Your task to perform on an android device: snooze an email in the gmail app Image 0: 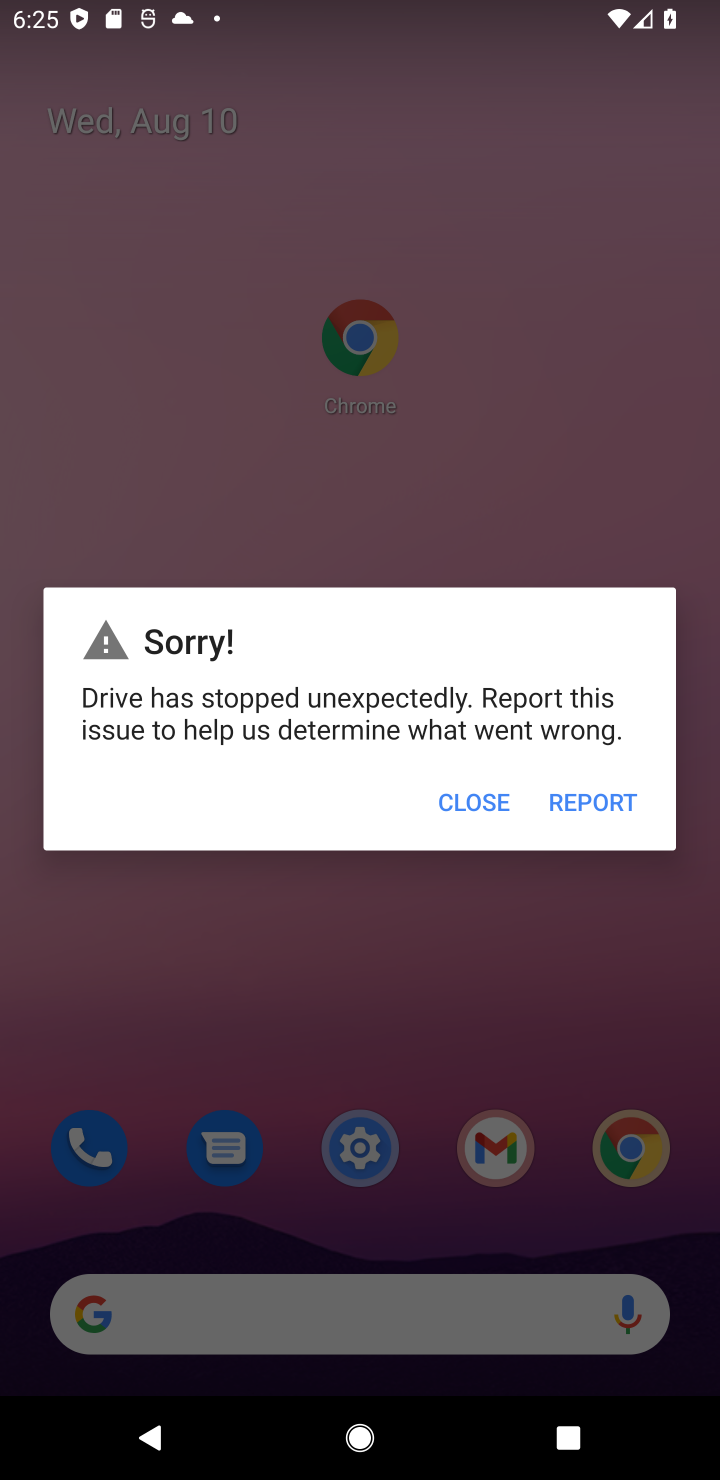
Step 0: click (480, 805)
Your task to perform on an android device: snooze an email in the gmail app Image 1: 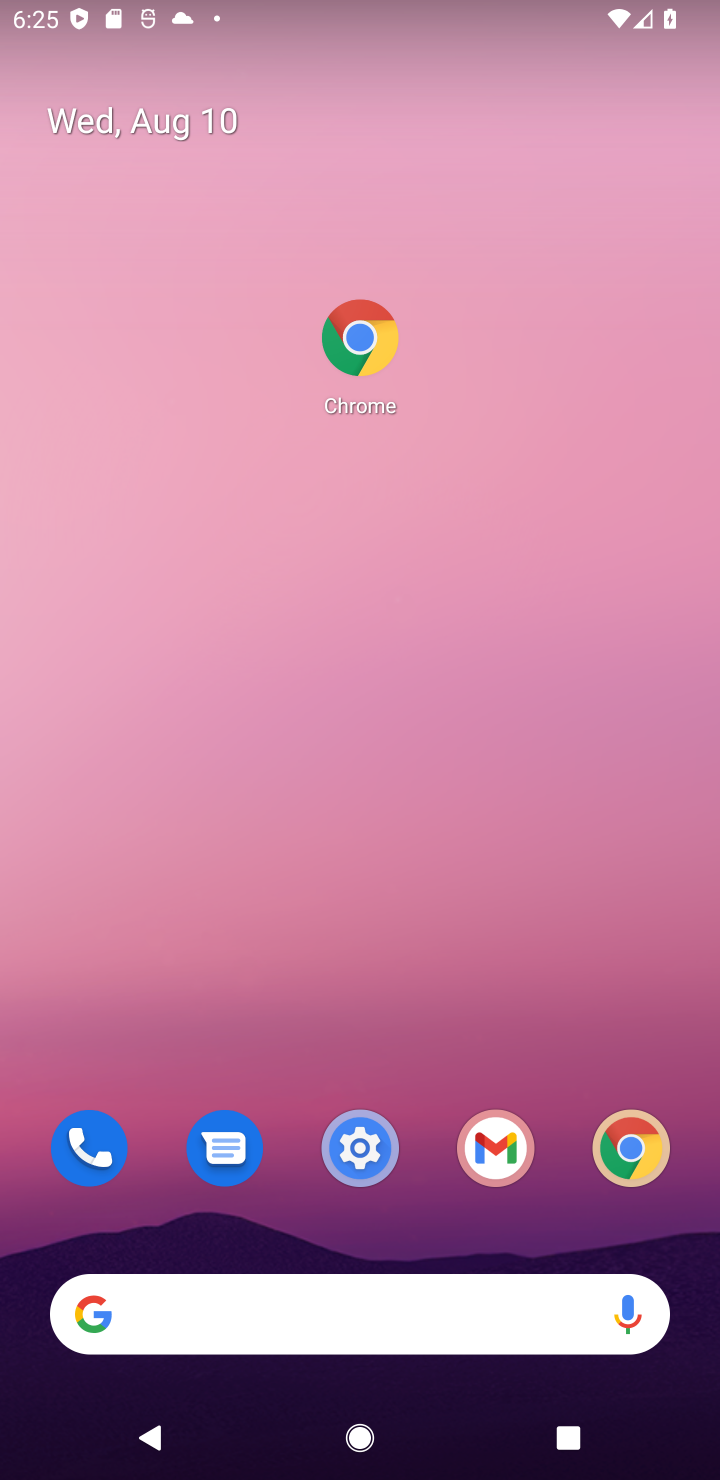
Step 1: click (486, 1153)
Your task to perform on an android device: snooze an email in the gmail app Image 2: 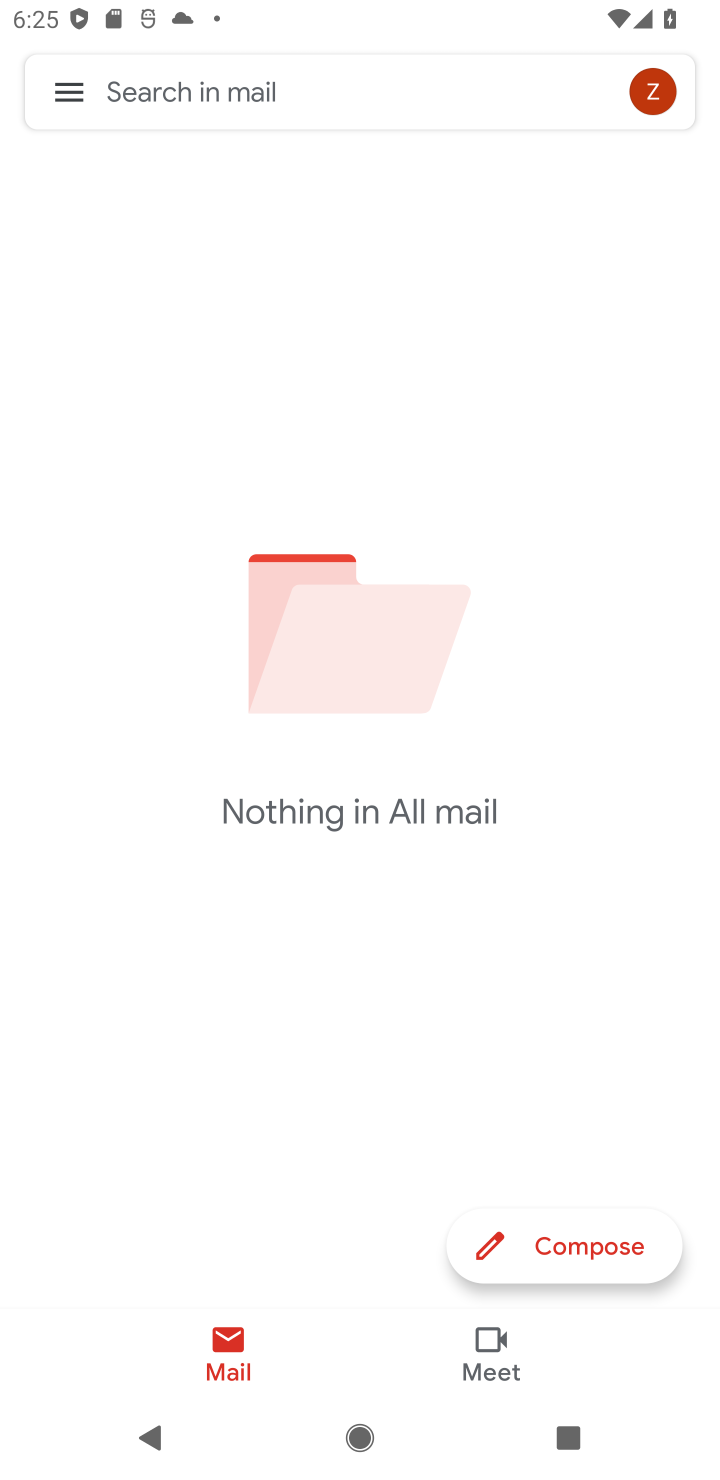
Step 2: click (58, 99)
Your task to perform on an android device: snooze an email in the gmail app Image 3: 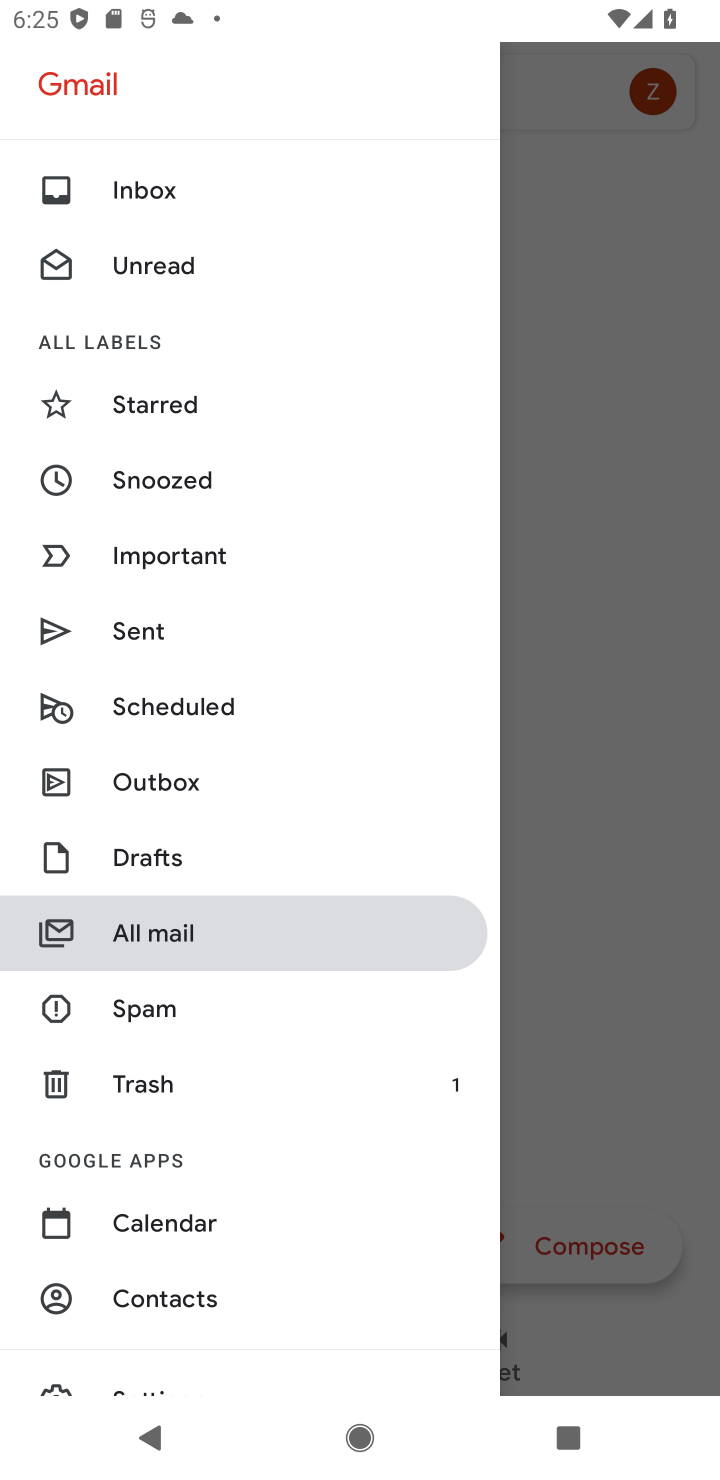
Step 3: click (119, 923)
Your task to perform on an android device: snooze an email in the gmail app Image 4: 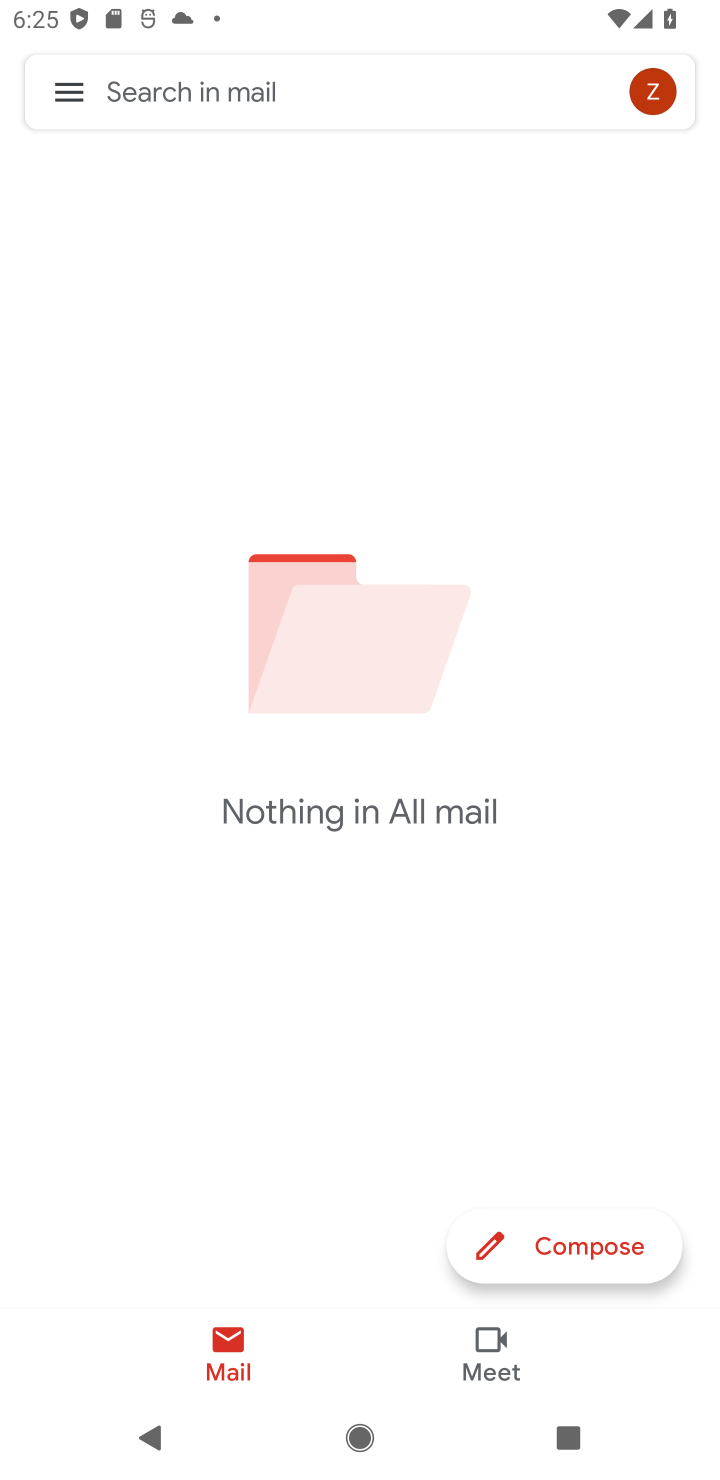
Step 4: click (119, 923)
Your task to perform on an android device: snooze an email in the gmail app Image 5: 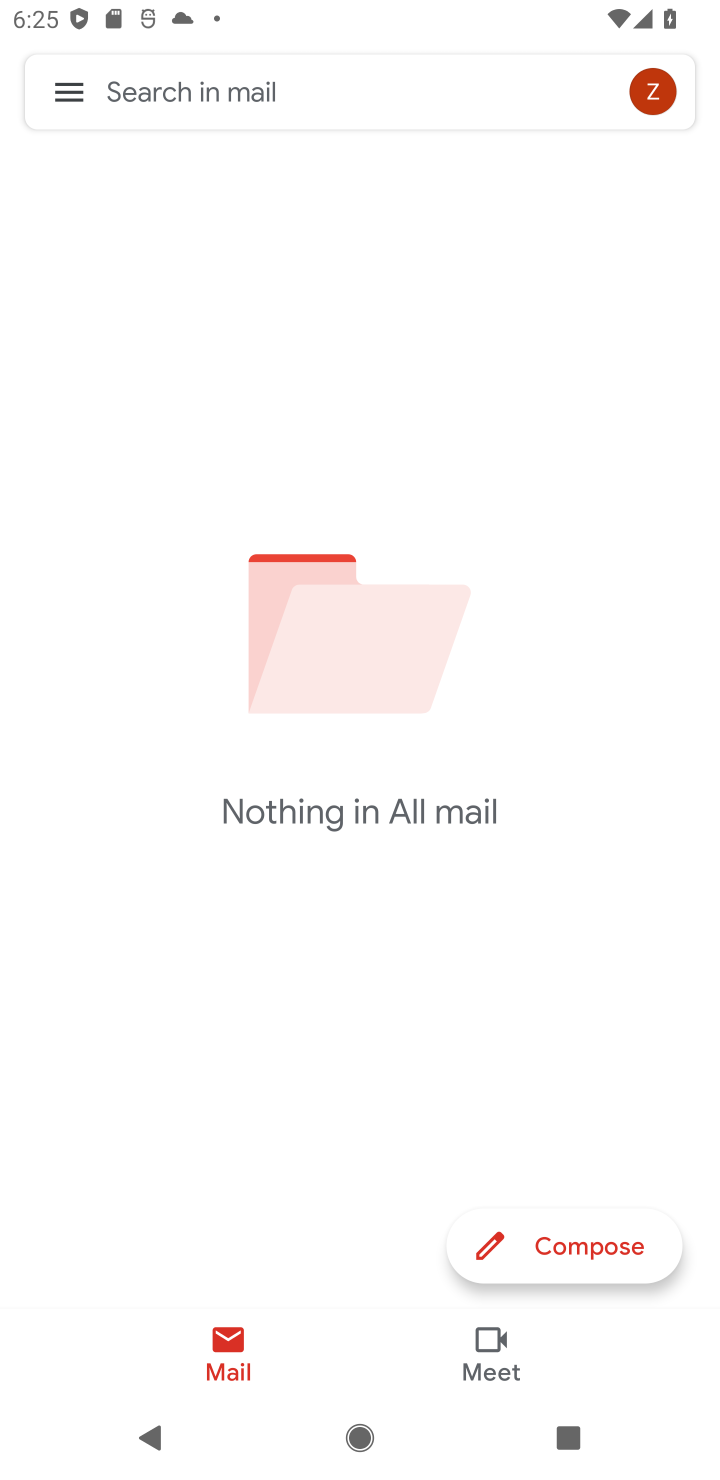
Step 5: click (119, 923)
Your task to perform on an android device: snooze an email in the gmail app Image 6: 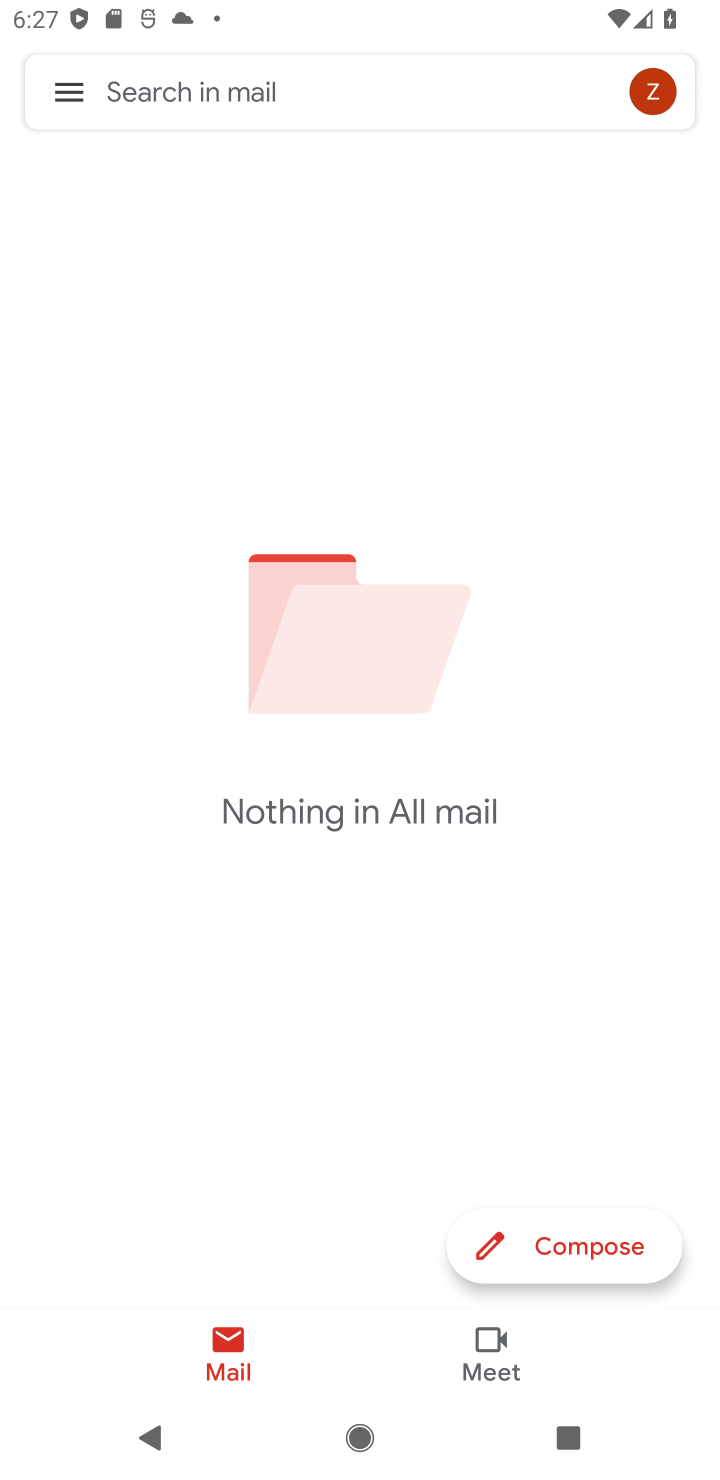
Step 6: task complete